Your task to perform on an android device: See recent photos Image 0: 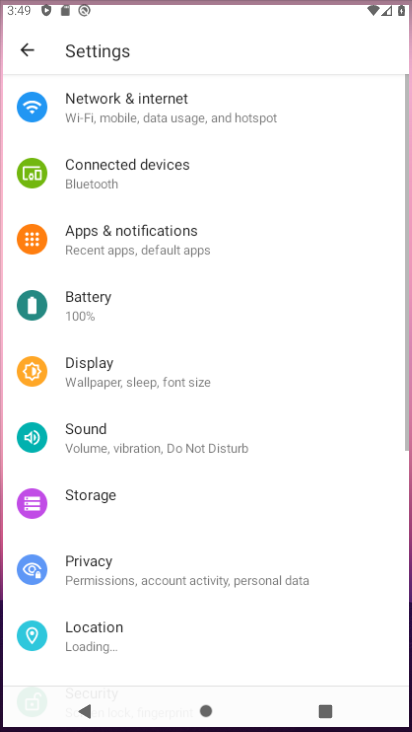
Step 0: drag from (167, 699) to (124, 152)
Your task to perform on an android device: See recent photos Image 1: 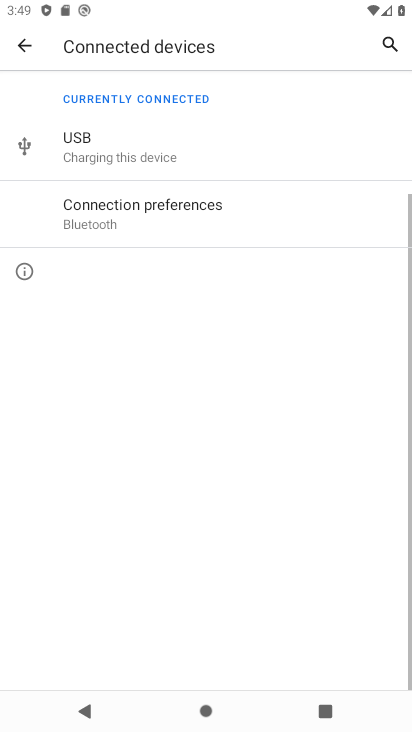
Step 1: click (22, 39)
Your task to perform on an android device: See recent photos Image 2: 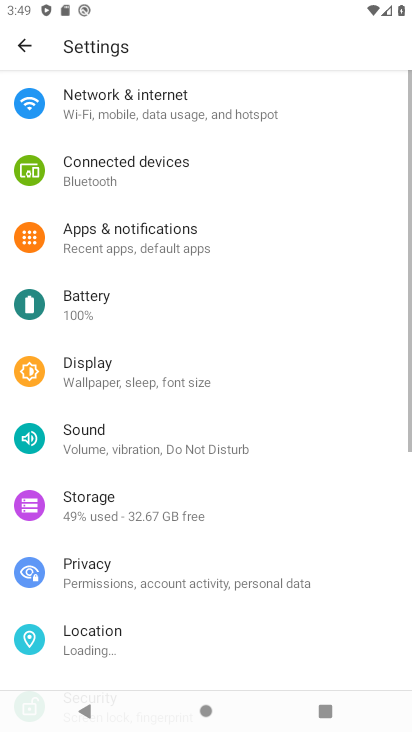
Step 2: click (21, 28)
Your task to perform on an android device: See recent photos Image 3: 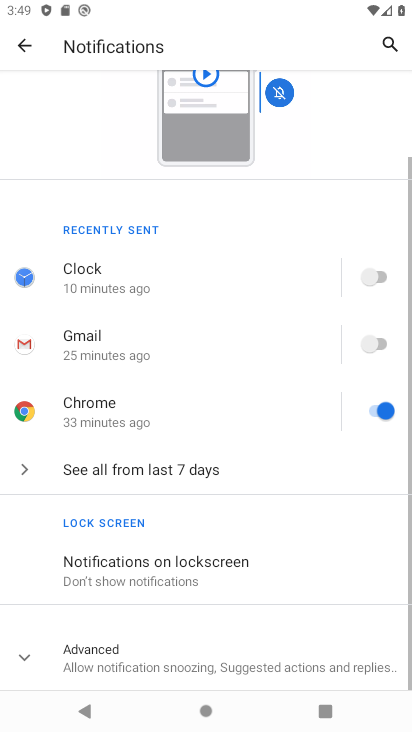
Step 3: click (24, 45)
Your task to perform on an android device: See recent photos Image 4: 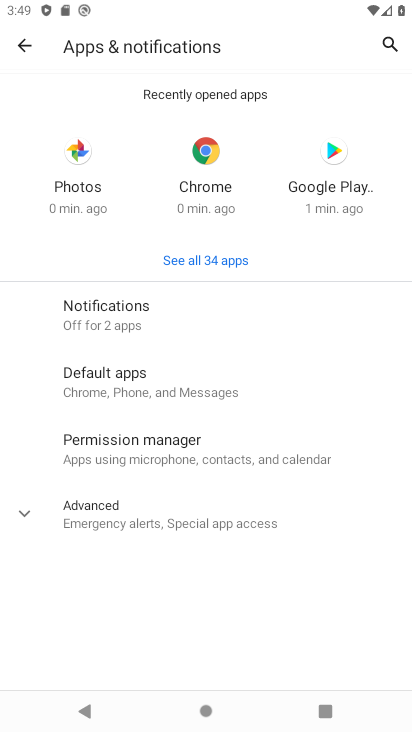
Step 4: click (24, 43)
Your task to perform on an android device: See recent photos Image 5: 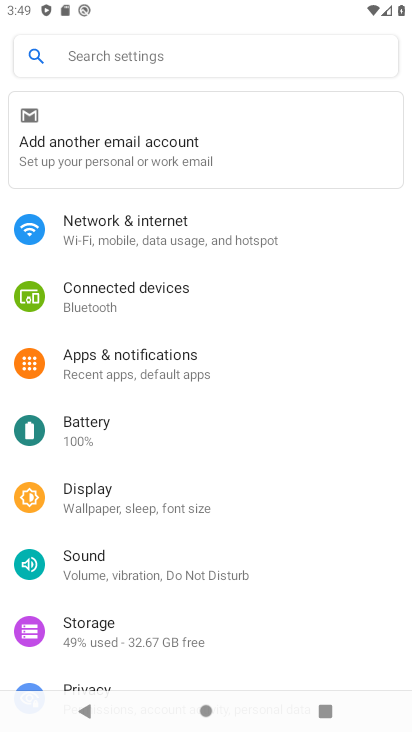
Step 5: drag from (166, 606) to (165, 35)
Your task to perform on an android device: See recent photos Image 6: 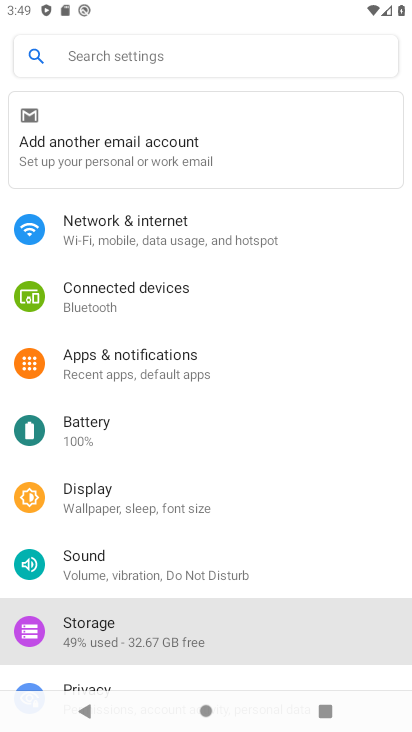
Step 6: drag from (212, 459) to (160, 140)
Your task to perform on an android device: See recent photos Image 7: 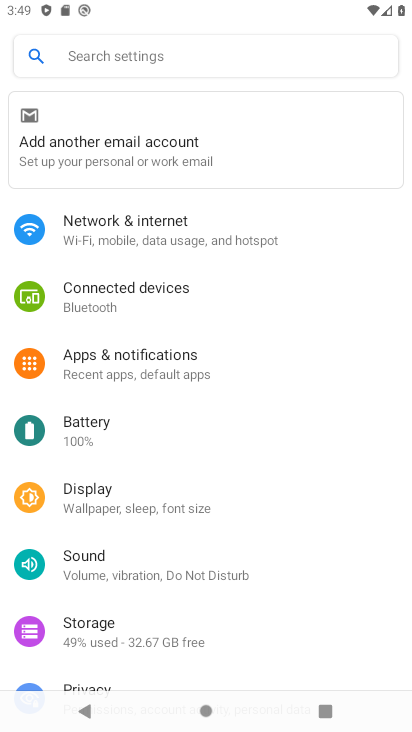
Step 7: press back button
Your task to perform on an android device: See recent photos Image 8: 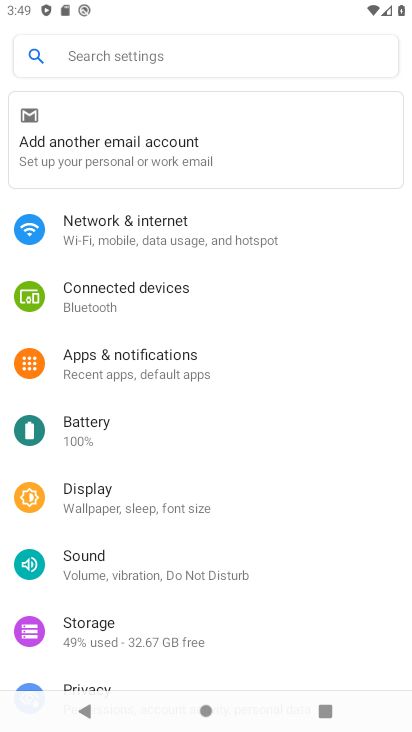
Step 8: press back button
Your task to perform on an android device: See recent photos Image 9: 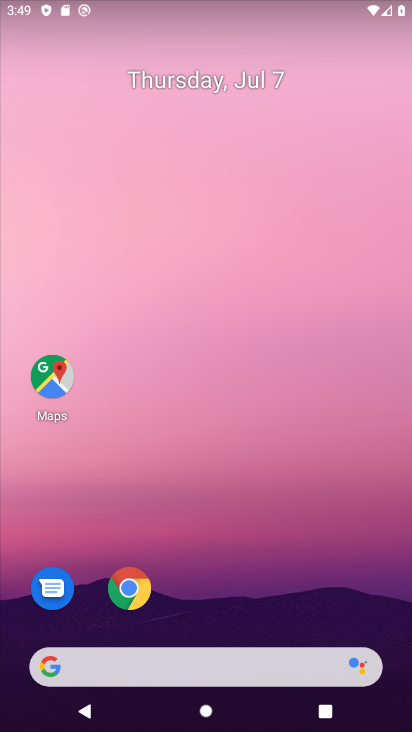
Step 9: drag from (304, 656) to (227, 183)
Your task to perform on an android device: See recent photos Image 10: 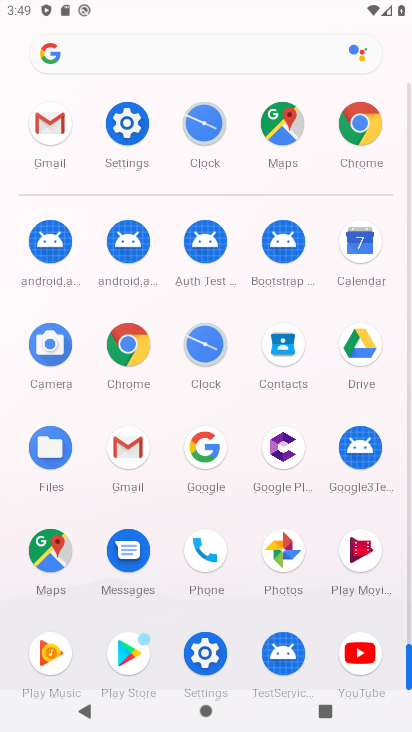
Step 10: click (286, 543)
Your task to perform on an android device: See recent photos Image 11: 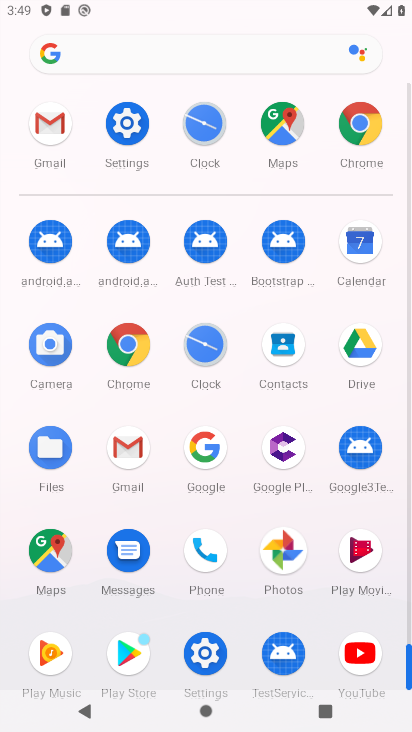
Step 11: click (285, 546)
Your task to perform on an android device: See recent photos Image 12: 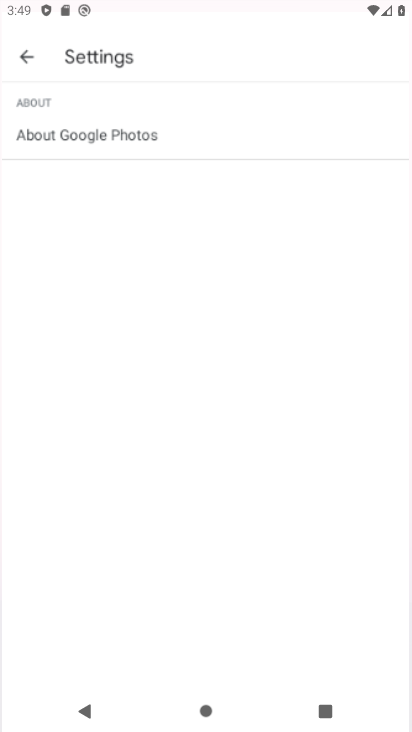
Step 12: click (284, 544)
Your task to perform on an android device: See recent photos Image 13: 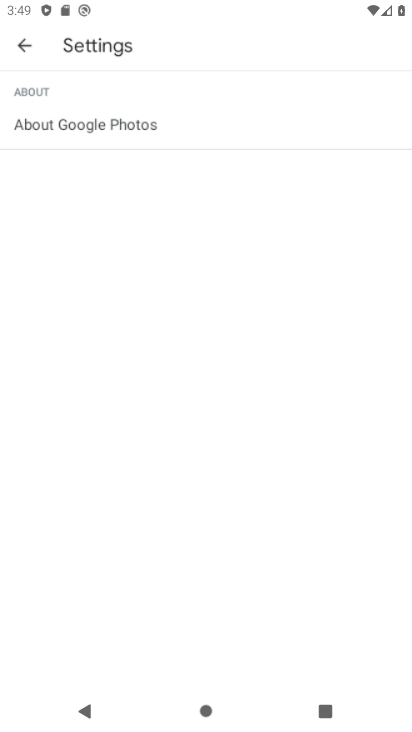
Step 13: click (284, 544)
Your task to perform on an android device: See recent photos Image 14: 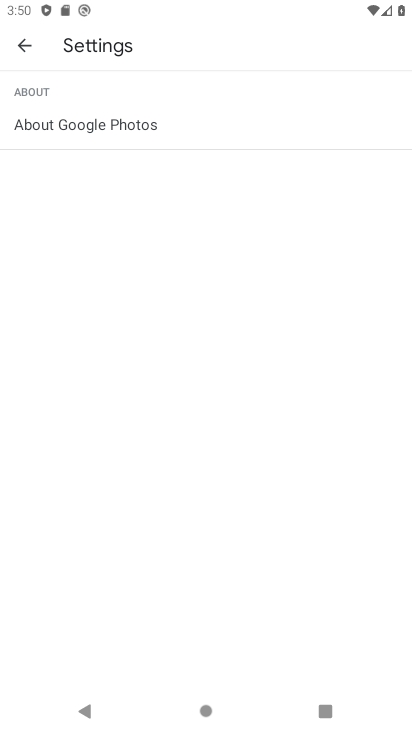
Step 14: click (87, 120)
Your task to perform on an android device: See recent photos Image 15: 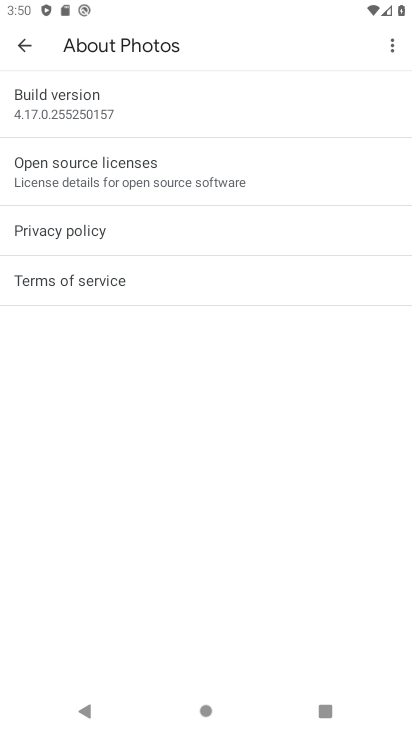
Step 15: click (29, 50)
Your task to perform on an android device: See recent photos Image 16: 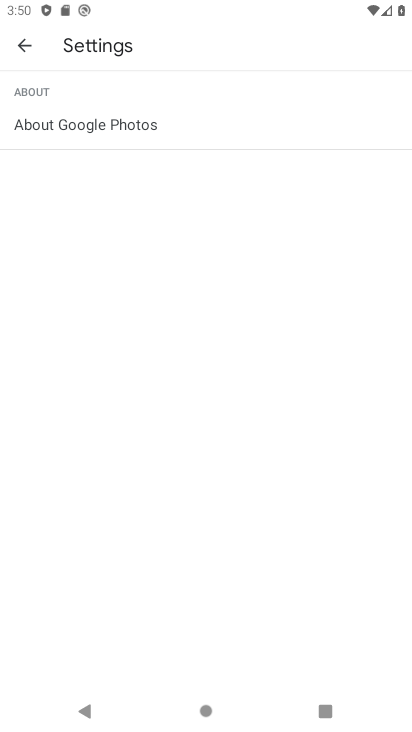
Step 16: click (19, 40)
Your task to perform on an android device: See recent photos Image 17: 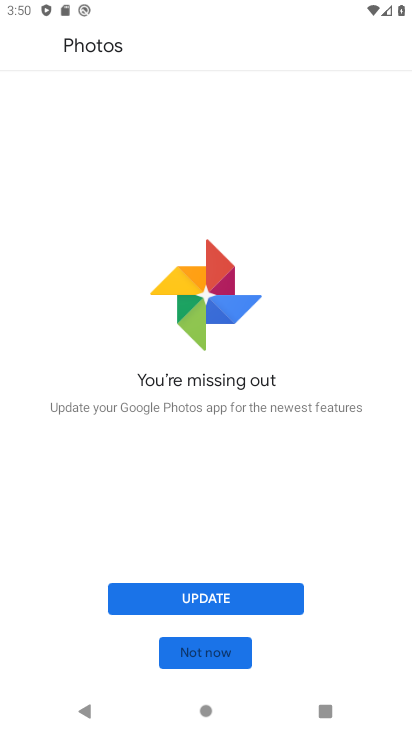
Step 17: click (214, 650)
Your task to perform on an android device: See recent photos Image 18: 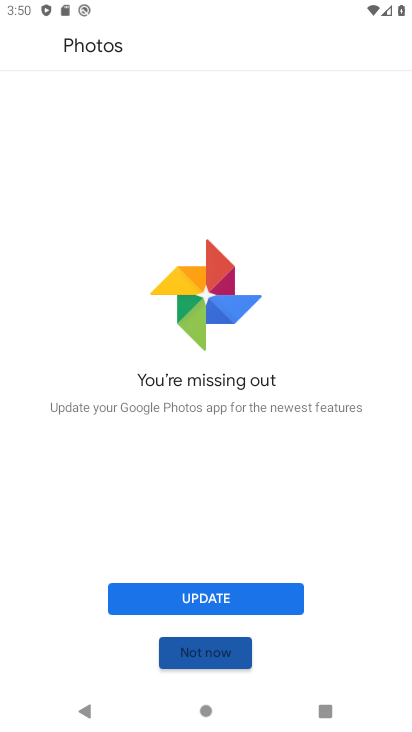
Step 18: click (213, 649)
Your task to perform on an android device: See recent photos Image 19: 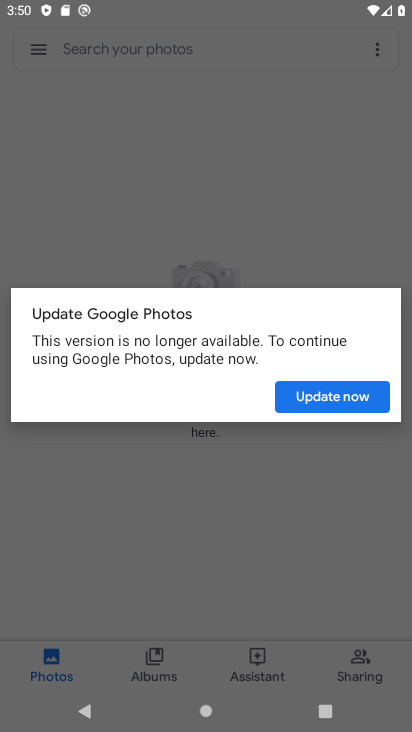
Step 19: click (335, 398)
Your task to perform on an android device: See recent photos Image 20: 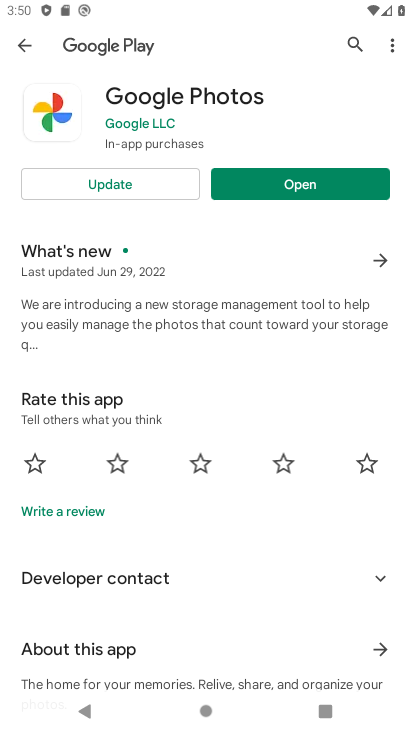
Step 20: click (125, 189)
Your task to perform on an android device: See recent photos Image 21: 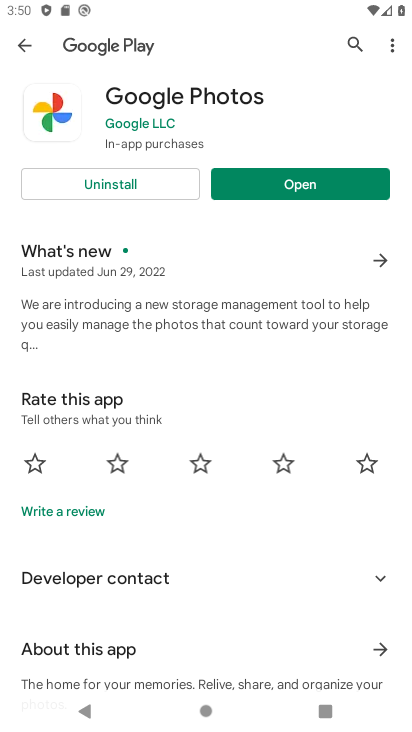
Step 21: click (281, 186)
Your task to perform on an android device: See recent photos Image 22: 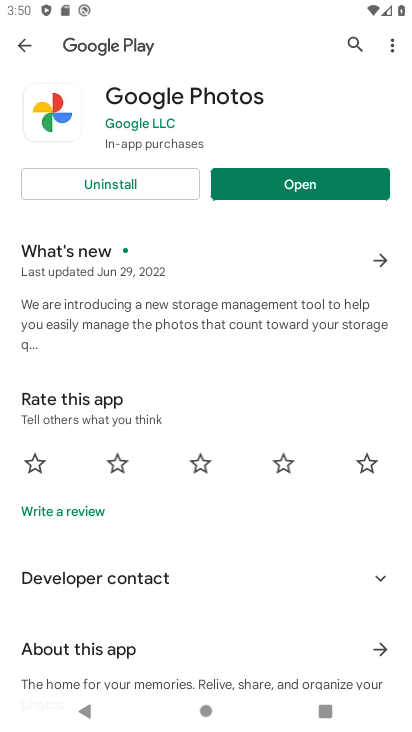
Step 22: click (286, 179)
Your task to perform on an android device: See recent photos Image 23: 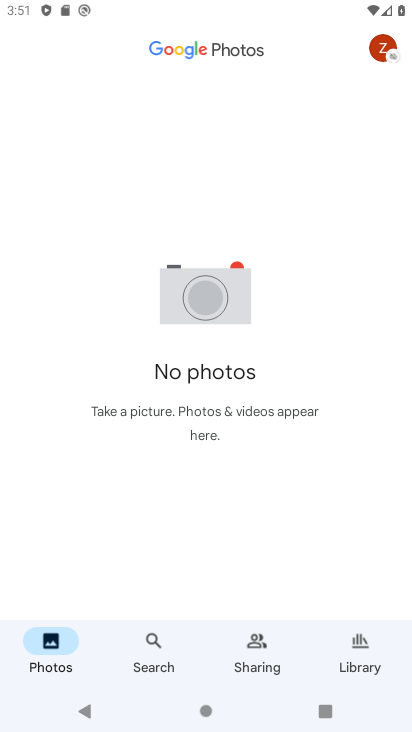
Step 23: task complete